Your task to perform on an android device: open device folders in google photos Image 0: 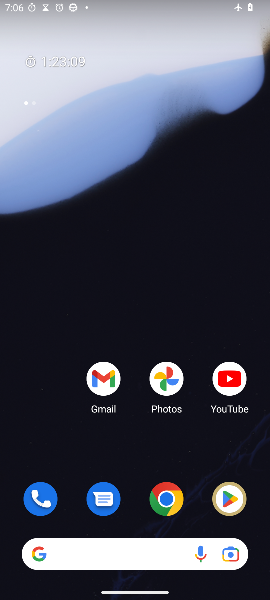
Step 0: drag from (105, 491) to (13, 60)
Your task to perform on an android device: open device folders in google photos Image 1: 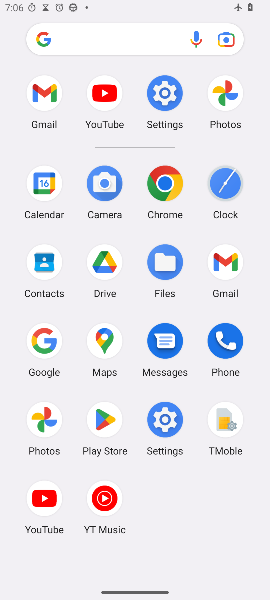
Step 1: click (229, 99)
Your task to perform on an android device: open device folders in google photos Image 2: 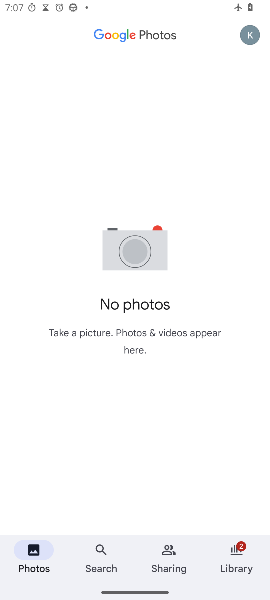
Step 2: task complete